Your task to perform on an android device: find snoozed emails in the gmail app Image 0: 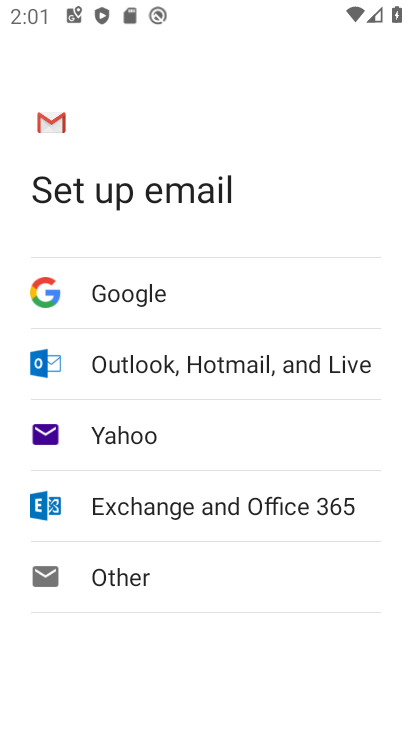
Step 0: press home button
Your task to perform on an android device: find snoozed emails in the gmail app Image 1: 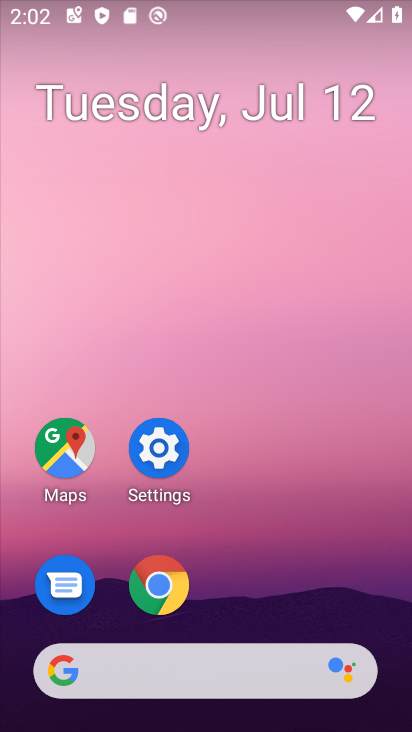
Step 1: drag from (393, 697) to (295, 105)
Your task to perform on an android device: find snoozed emails in the gmail app Image 2: 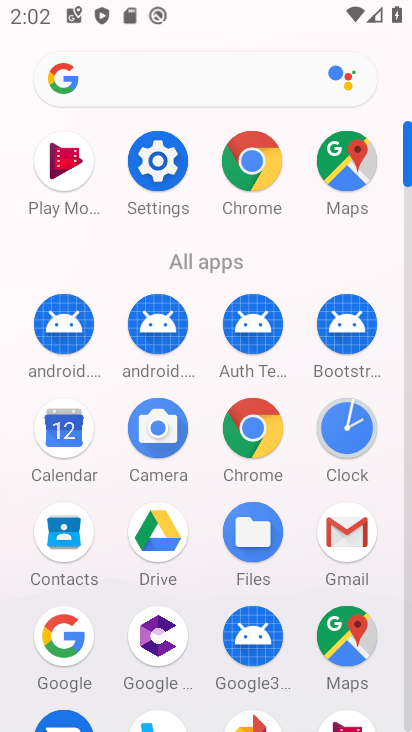
Step 2: click (342, 526)
Your task to perform on an android device: find snoozed emails in the gmail app Image 3: 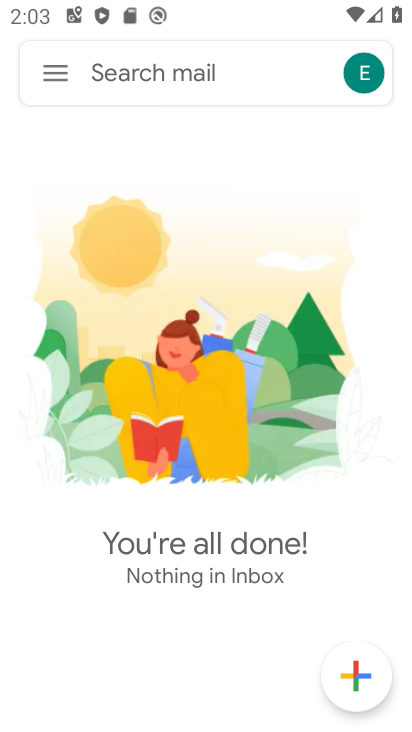
Step 3: click (56, 69)
Your task to perform on an android device: find snoozed emails in the gmail app Image 4: 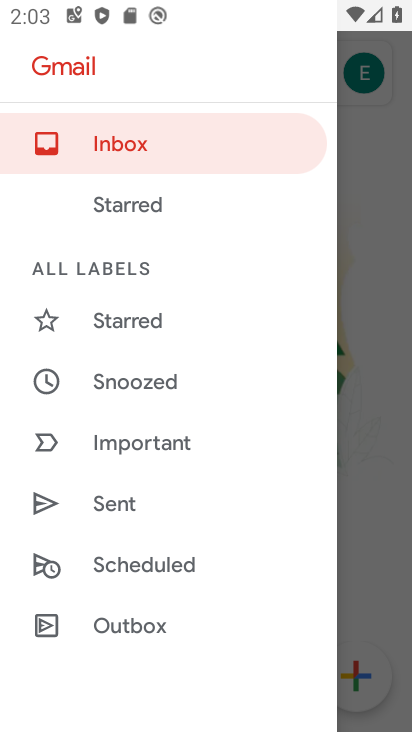
Step 4: click (356, 279)
Your task to perform on an android device: find snoozed emails in the gmail app Image 5: 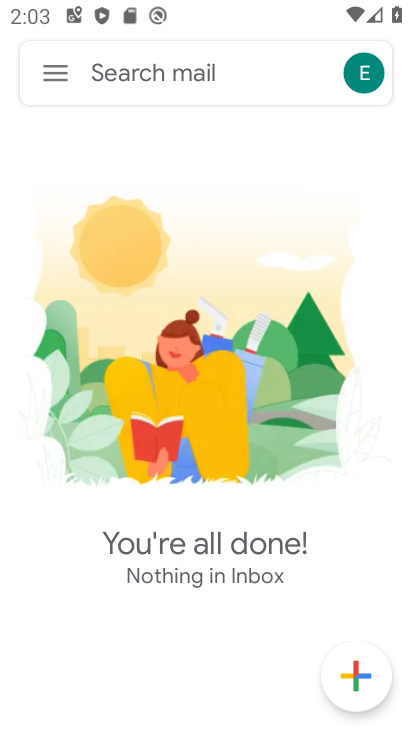
Step 5: click (53, 74)
Your task to perform on an android device: find snoozed emails in the gmail app Image 6: 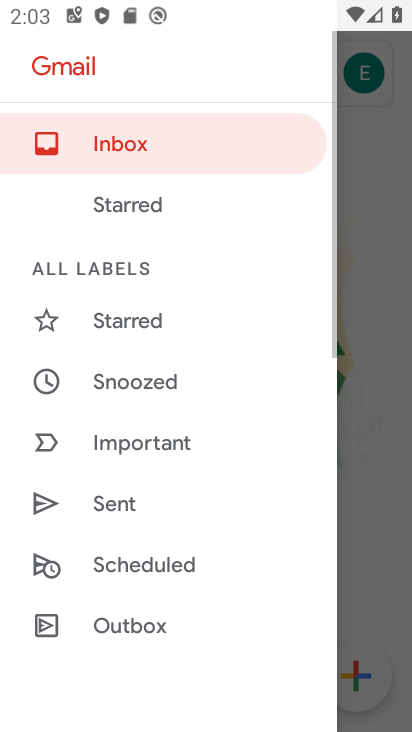
Step 6: click (141, 373)
Your task to perform on an android device: find snoozed emails in the gmail app Image 7: 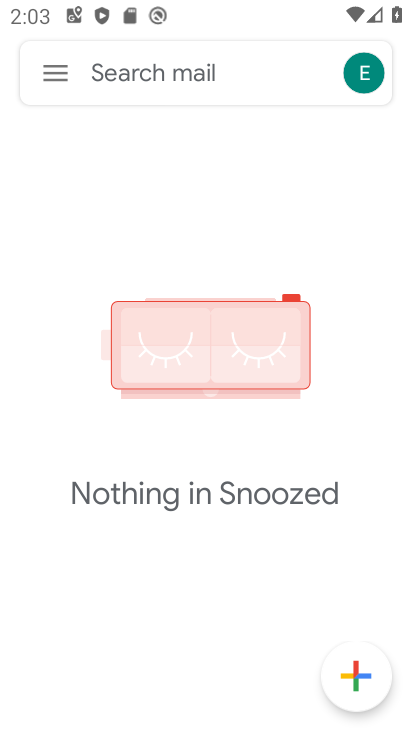
Step 7: task complete